Your task to perform on an android device: Go to ESPN.com Image 0: 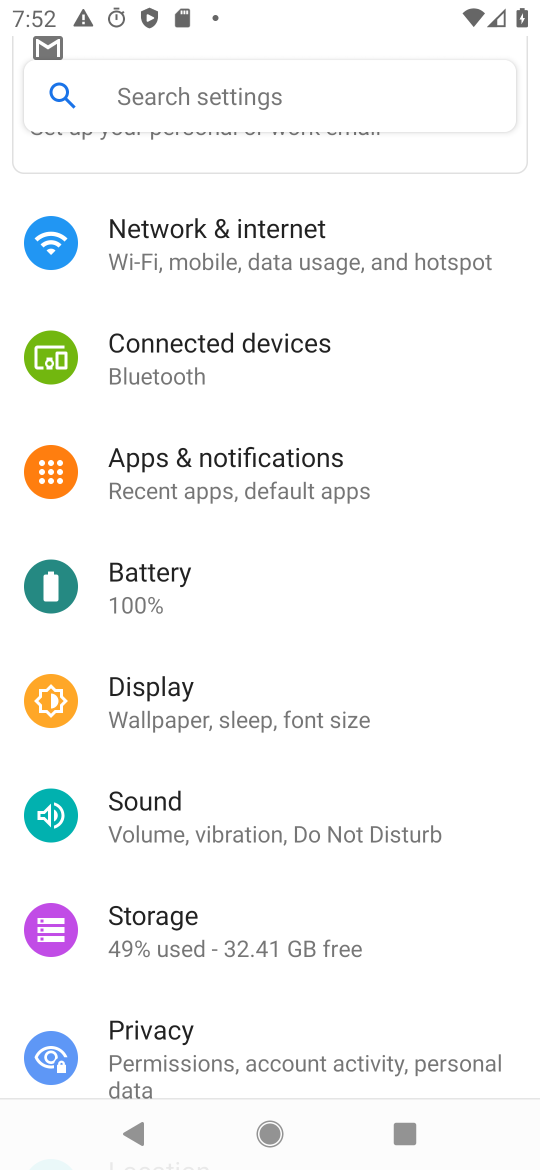
Step 0: press home button
Your task to perform on an android device: Go to ESPN.com Image 1: 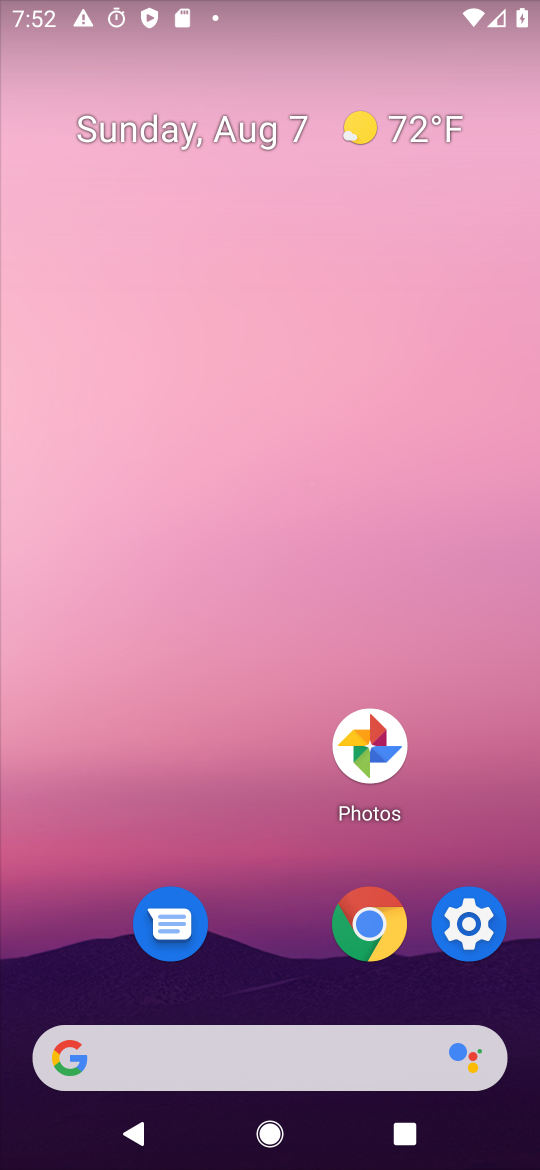
Step 1: drag from (324, 1100) to (213, 284)
Your task to perform on an android device: Go to ESPN.com Image 2: 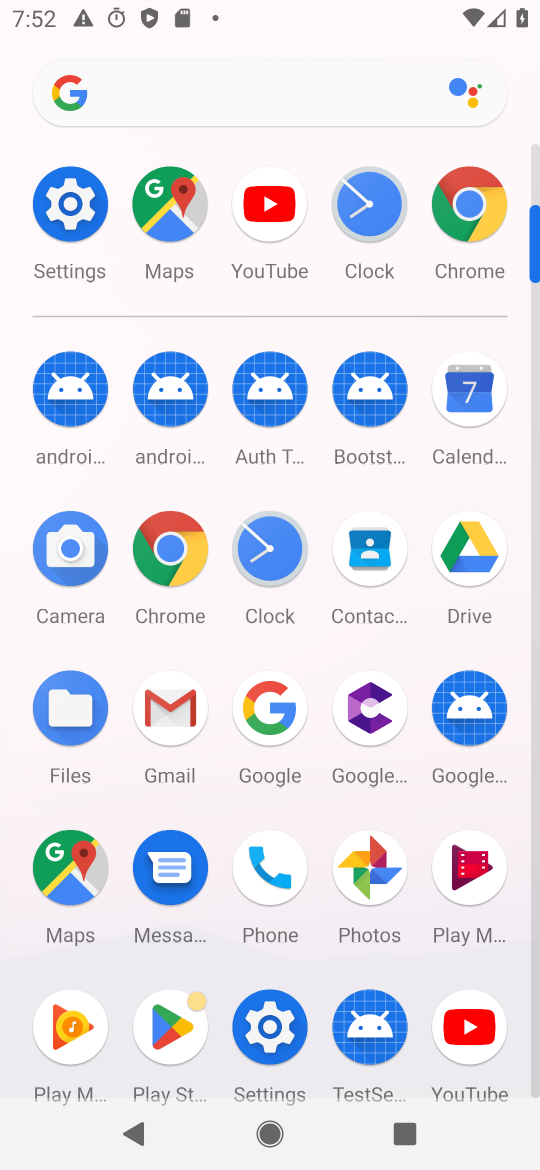
Step 2: click (481, 222)
Your task to perform on an android device: Go to ESPN.com Image 3: 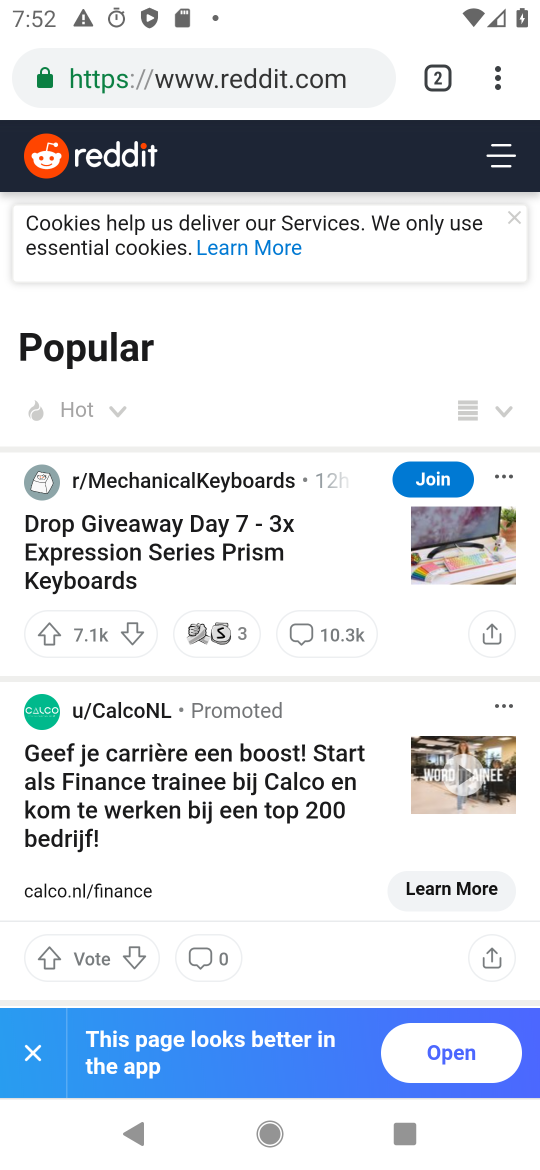
Step 3: click (217, 81)
Your task to perform on an android device: Go to ESPN.com Image 4: 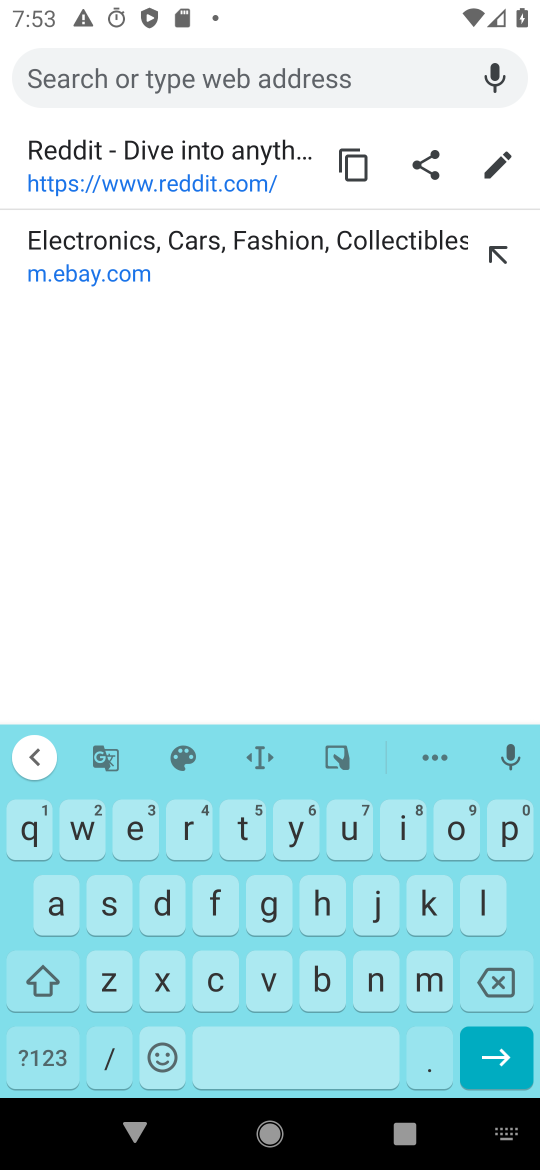
Step 4: click (135, 828)
Your task to perform on an android device: Go to ESPN.com Image 5: 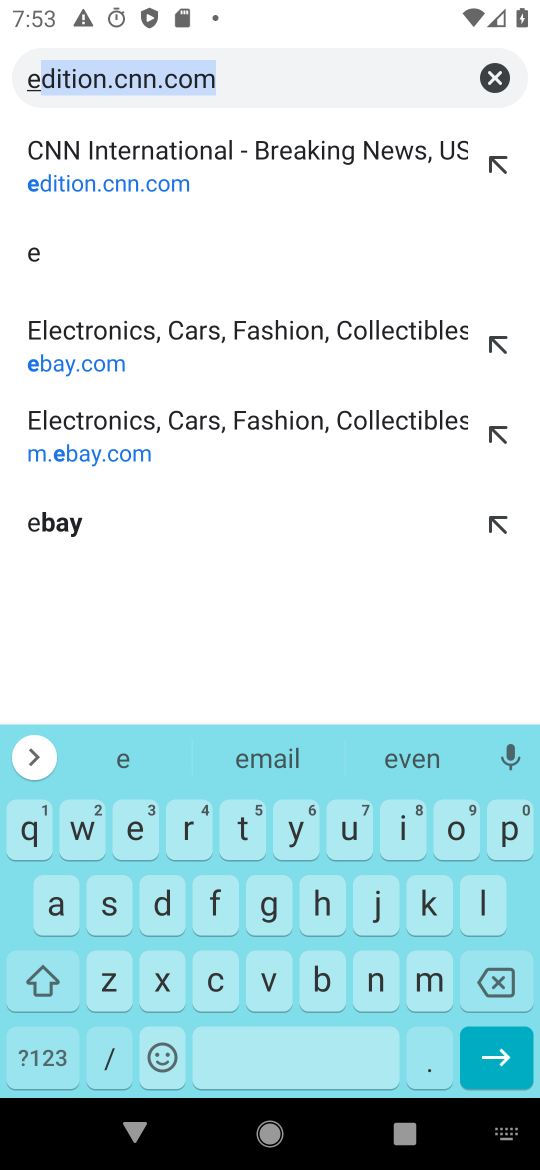
Step 5: click (105, 907)
Your task to perform on an android device: Go to ESPN.com Image 6: 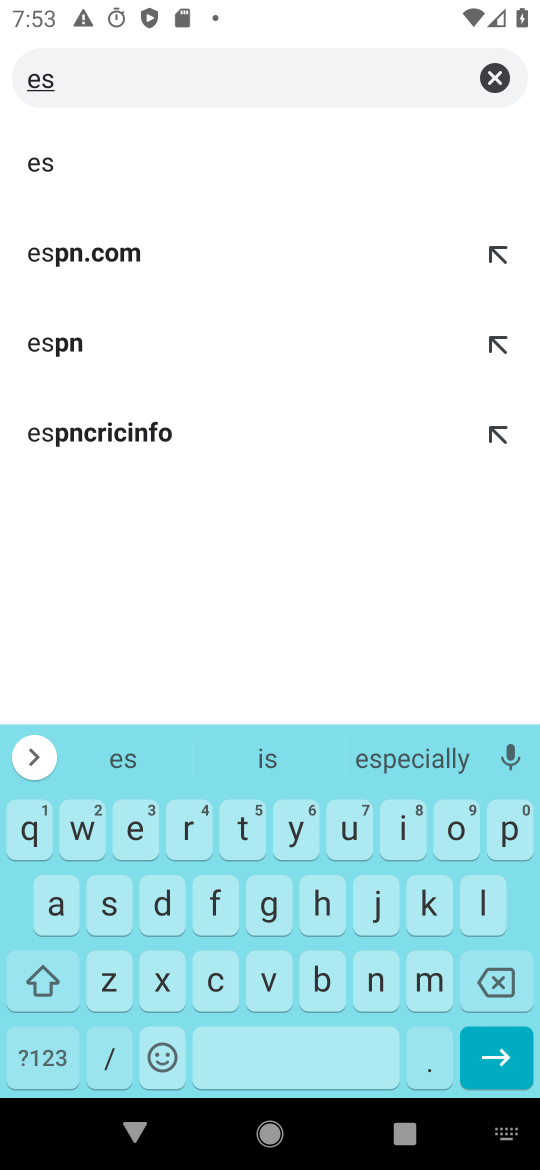
Step 6: click (112, 257)
Your task to perform on an android device: Go to ESPN.com Image 7: 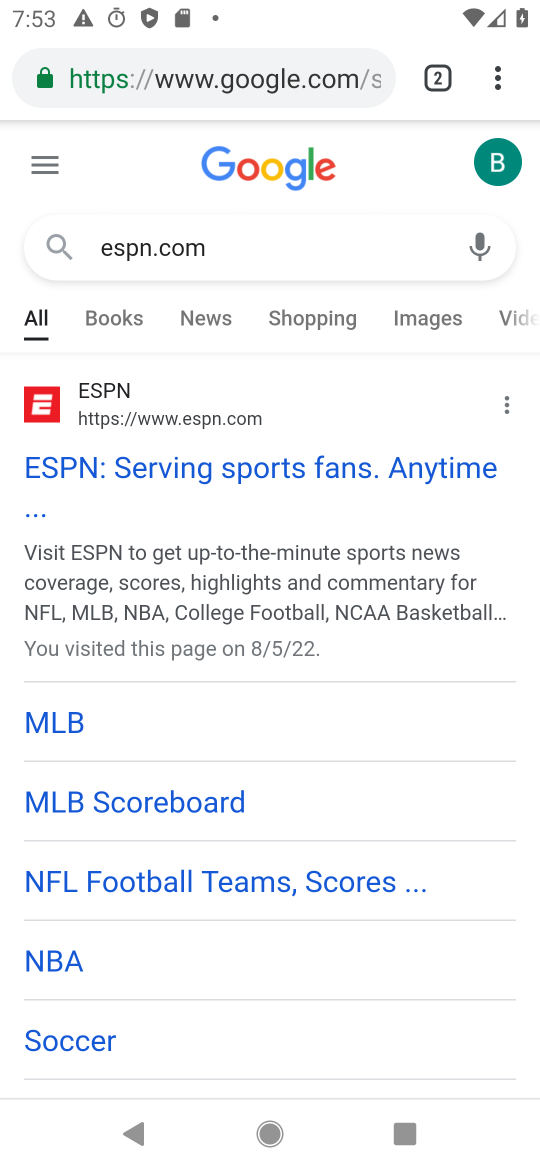
Step 7: click (89, 465)
Your task to perform on an android device: Go to ESPN.com Image 8: 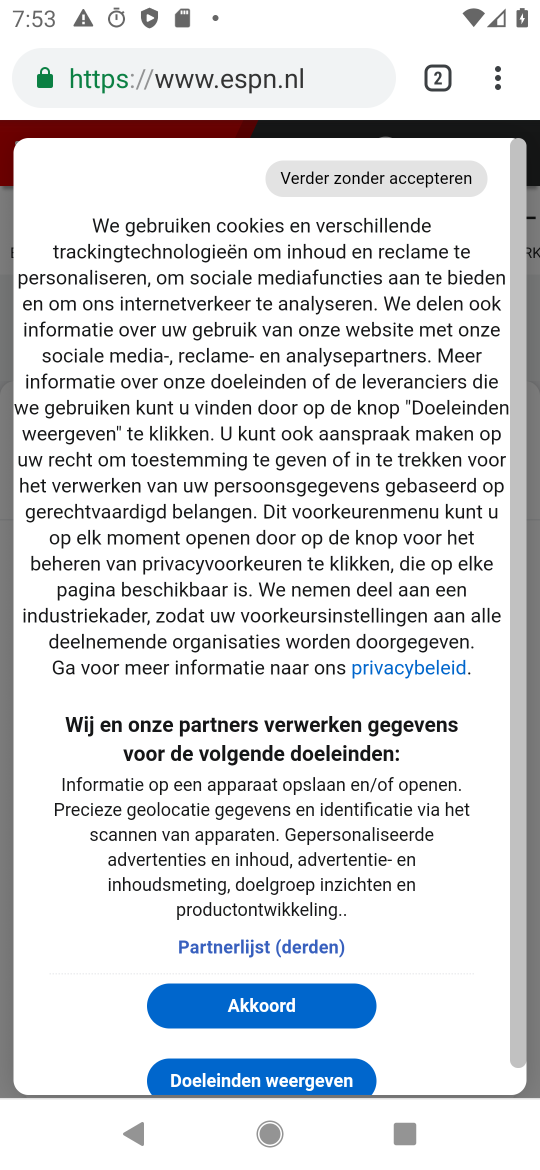
Step 8: click (299, 984)
Your task to perform on an android device: Go to ESPN.com Image 9: 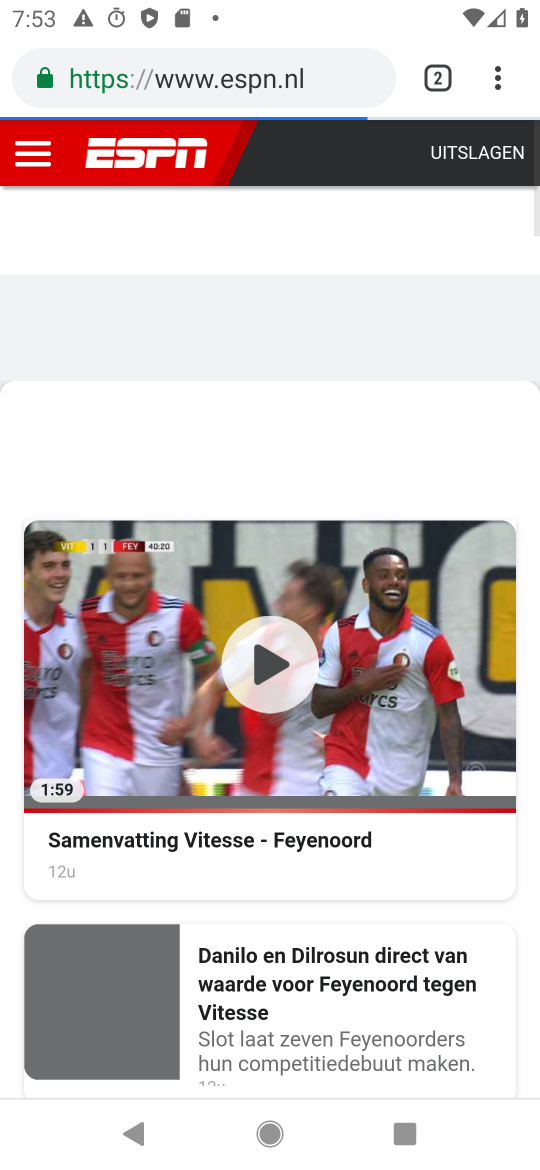
Step 9: task complete